Your task to perform on an android device: Go to notification settings Image 0: 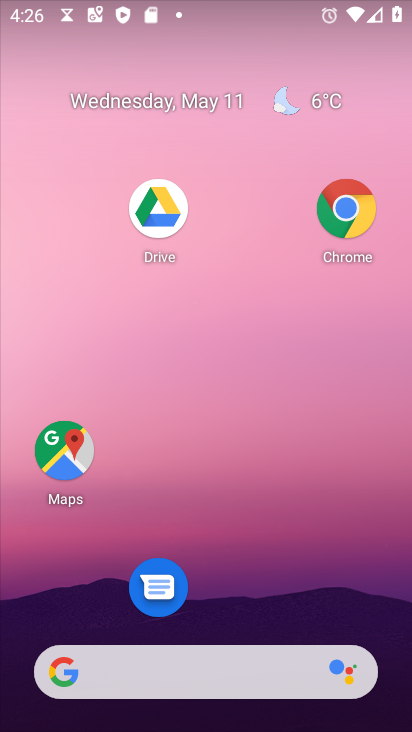
Step 0: drag from (303, 582) to (192, 107)
Your task to perform on an android device: Go to notification settings Image 1: 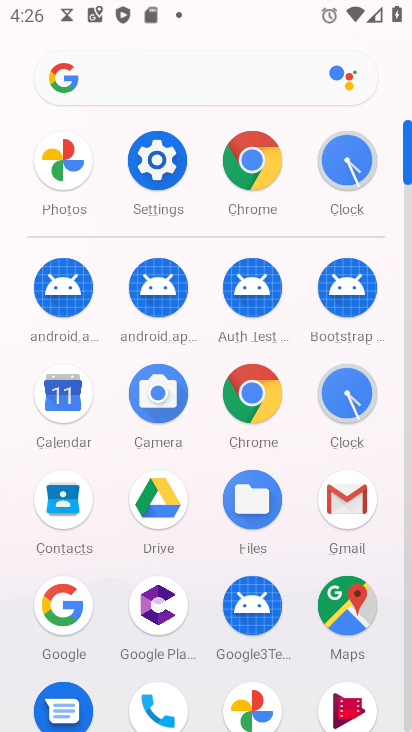
Step 1: click (145, 188)
Your task to perform on an android device: Go to notification settings Image 2: 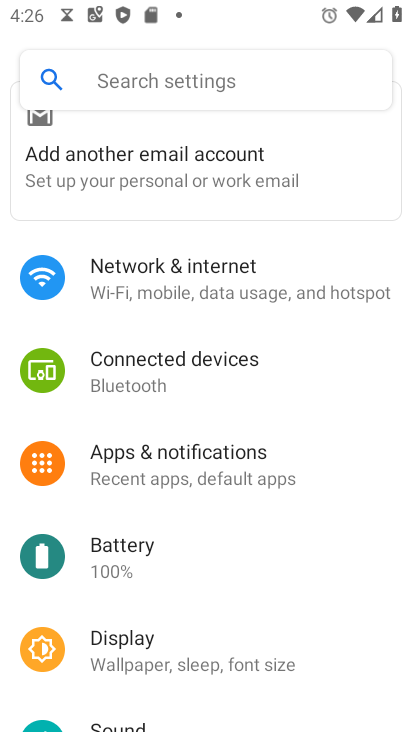
Step 2: drag from (239, 608) to (249, 242)
Your task to perform on an android device: Go to notification settings Image 3: 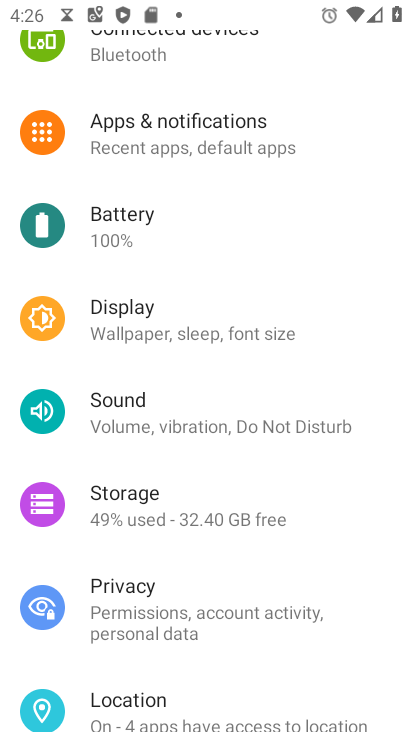
Step 3: click (270, 154)
Your task to perform on an android device: Go to notification settings Image 4: 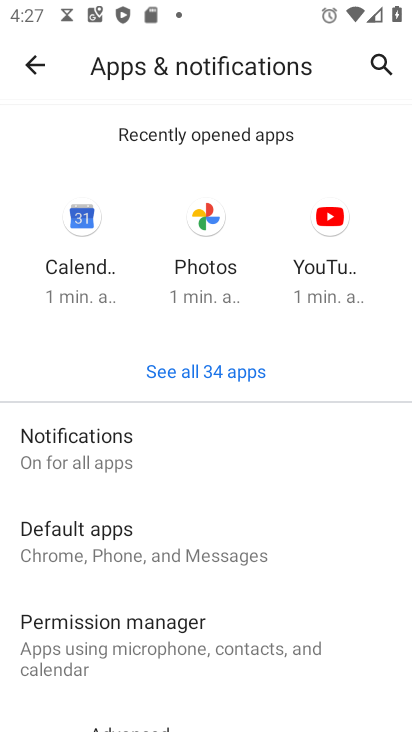
Step 4: task complete